Your task to perform on an android device: change notifications settings Image 0: 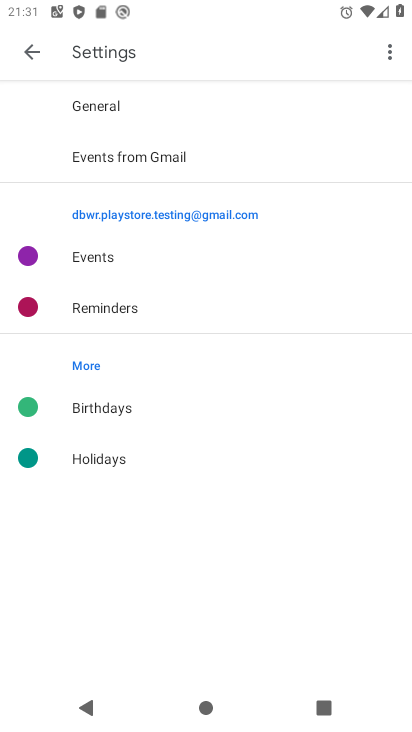
Step 0: press home button
Your task to perform on an android device: change notifications settings Image 1: 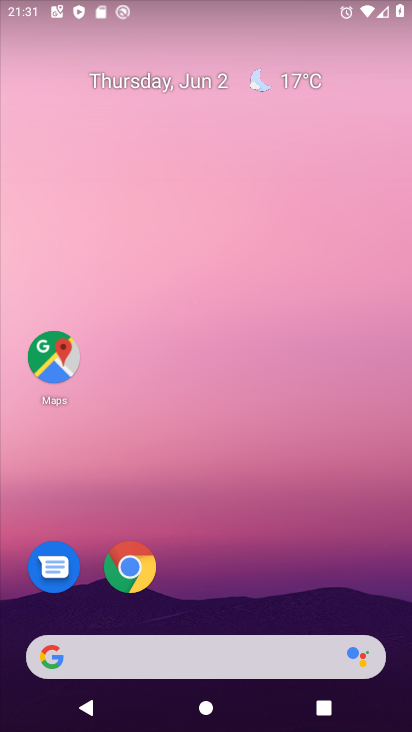
Step 1: drag from (224, 592) to (278, 244)
Your task to perform on an android device: change notifications settings Image 2: 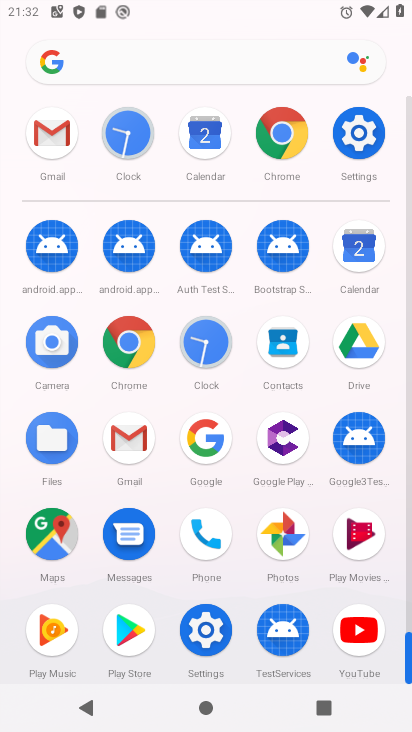
Step 2: click (346, 155)
Your task to perform on an android device: change notifications settings Image 3: 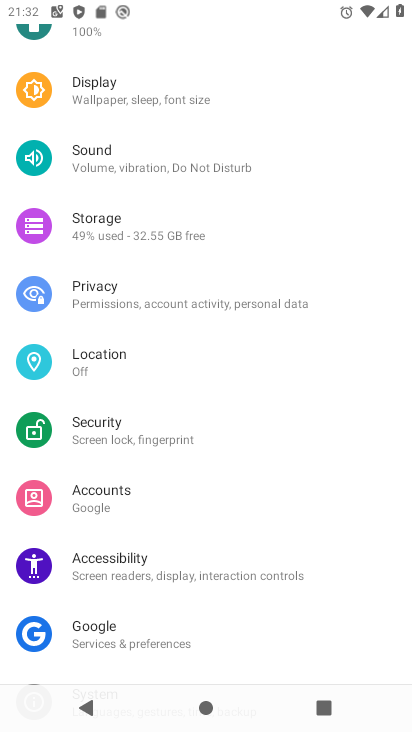
Step 3: drag from (163, 513) to (144, 731)
Your task to perform on an android device: change notifications settings Image 4: 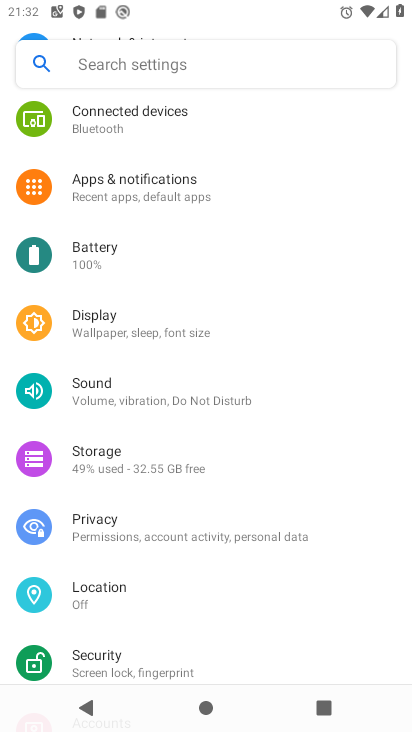
Step 4: click (174, 188)
Your task to perform on an android device: change notifications settings Image 5: 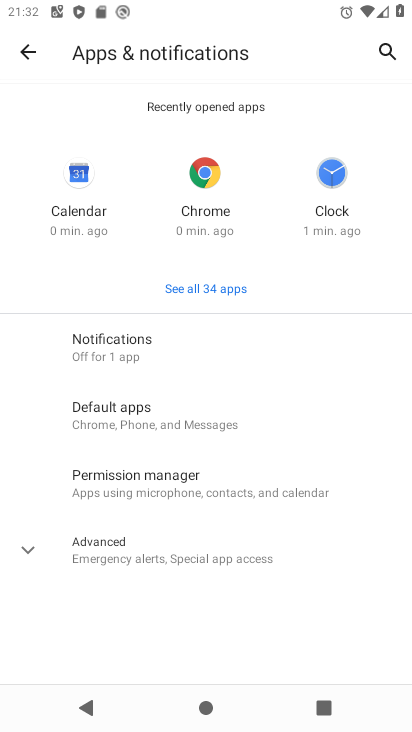
Step 5: click (150, 360)
Your task to perform on an android device: change notifications settings Image 6: 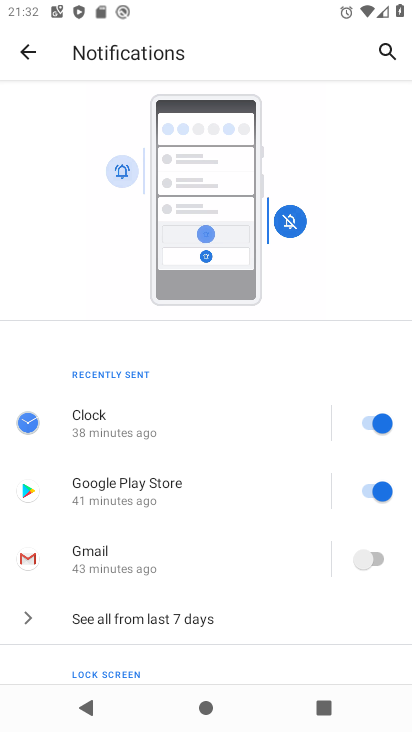
Step 6: click (186, 630)
Your task to perform on an android device: change notifications settings Image 7: 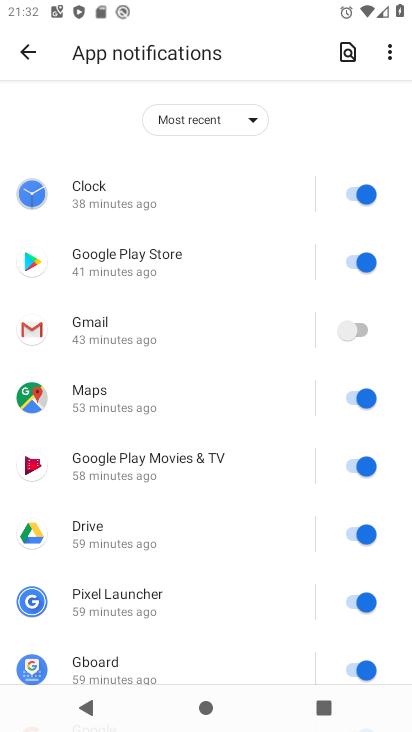
Step 7: click (346, 204)
Your task to perform on an android device: change notifications settings Image 8: 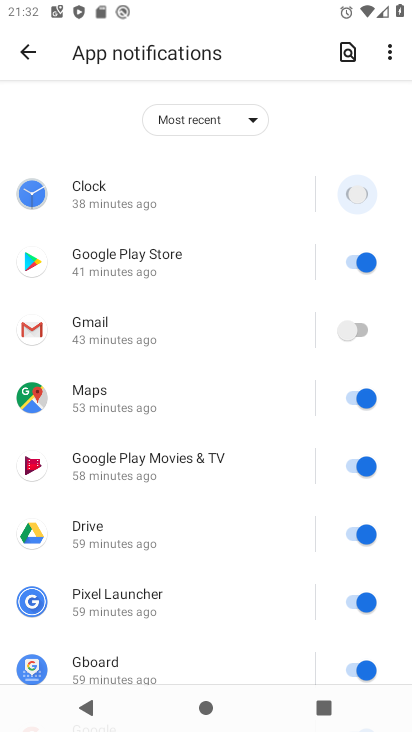
Step 8: click (337, 281)
Your task to perform on an android device: change notifications settings Image 9: 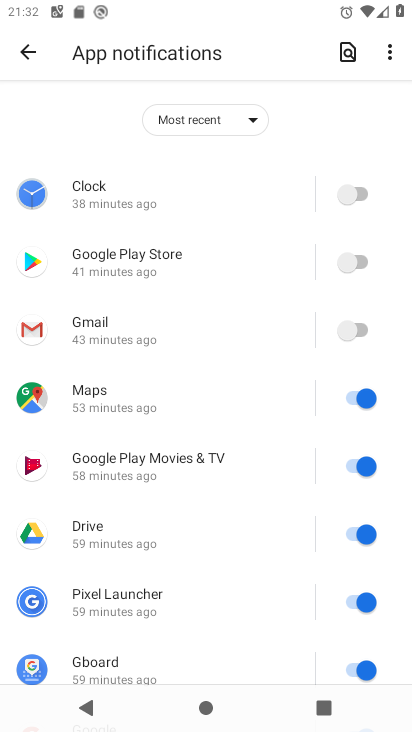
Step 9: click (349, 409)
Your task to perform on an android device: change notifications settings Image 10: 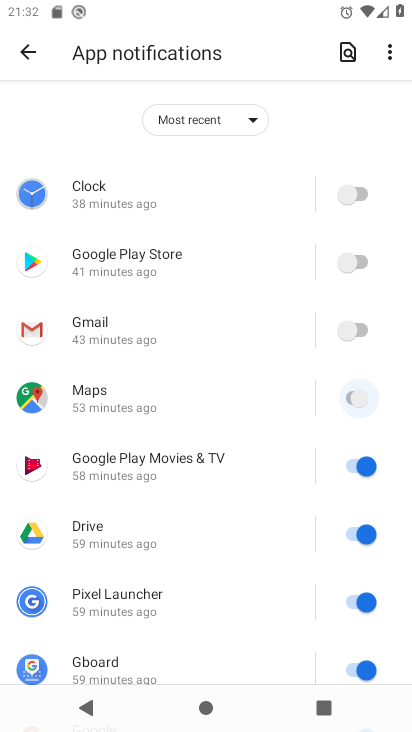
Step 10: click (346, 483)
Your task to perform on an android device: change notifications settings Image 11: 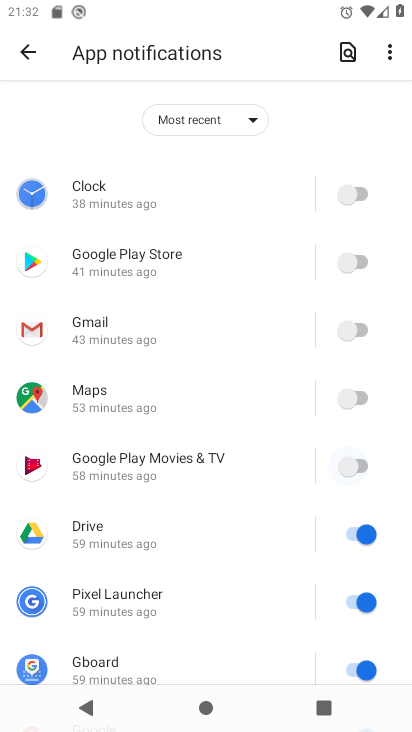
Step 11: click (351, 540)
Your task to perform on an android device: change notifications settings Image 12: 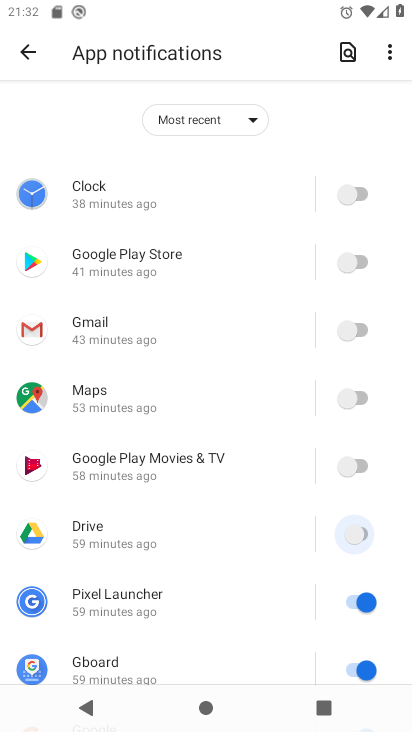
Step 12: click (349, 603)
Your task to perform on an android device: change notifications settings Image 13: 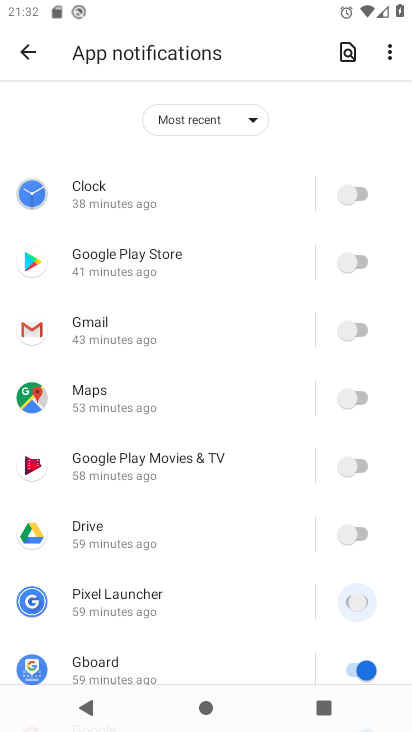
Step 13: click (344, 677)
Your task to perform on an android device: change notifications settings Image 14: 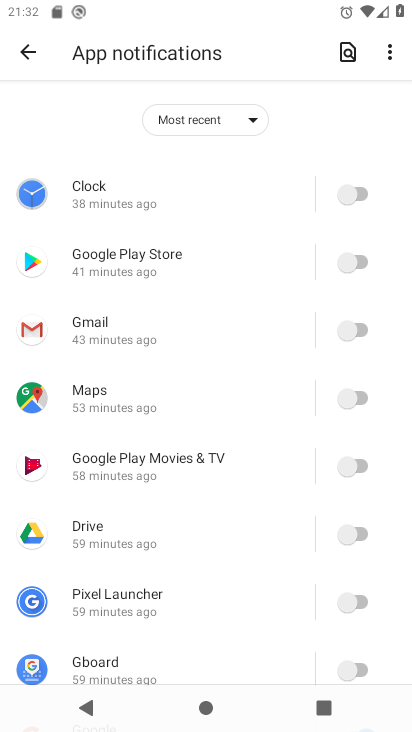
Step 14: drag from (258, 627) to (276, 398)
Your task to perform on an android device: change notifications settings Image 15: 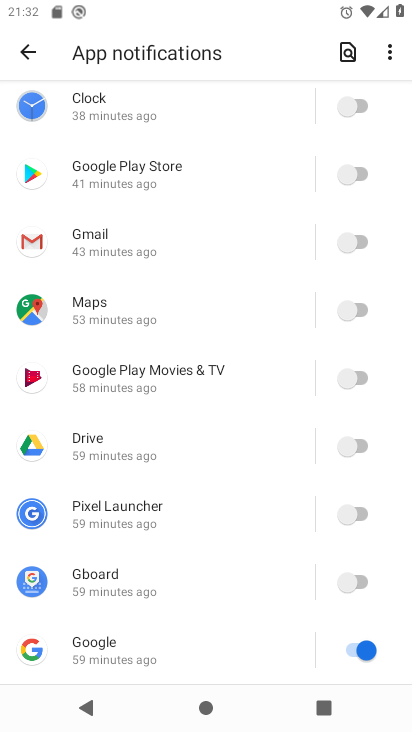
Step 15: click (345, 656)
Your task to perform on an android device: change notifications settings Image 16: 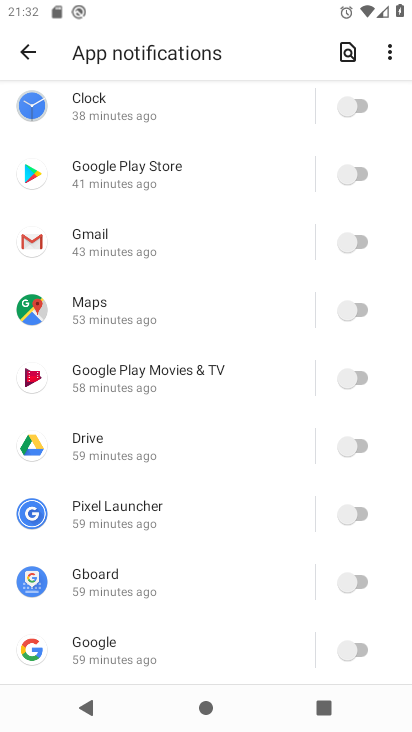
Step 16: task complete